Your task to perform on an android device: turn off improve location accuracy Image 0: 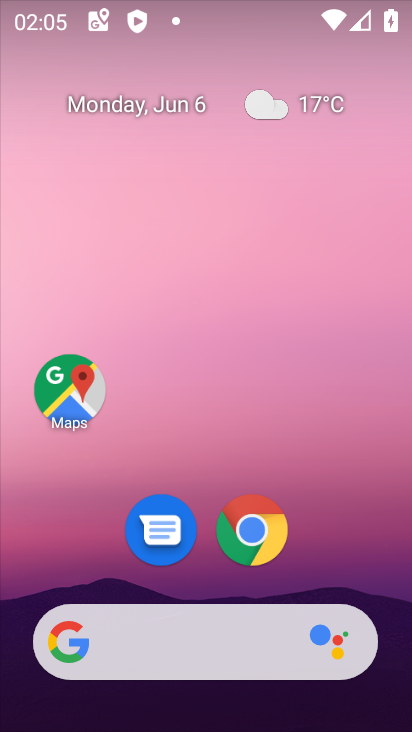
Step 0: drag from (284, 560) to (292, 177)
Your task to perform on an android device: turn off improve location accuracy Image 1: 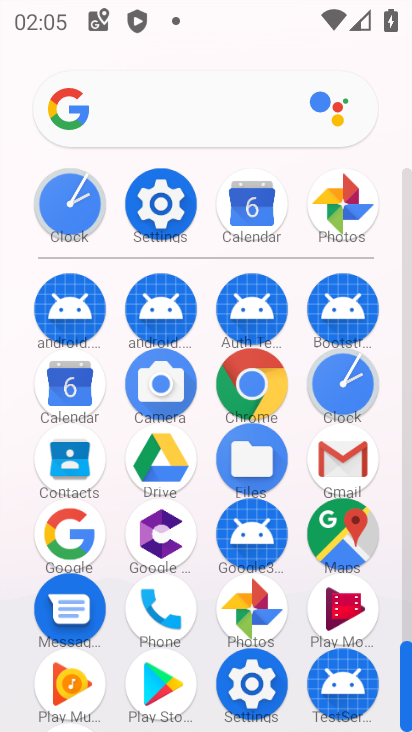
Step 1: click (155, 187)
Your task to perform on an android device: turn off improve location accuracy Image 2: 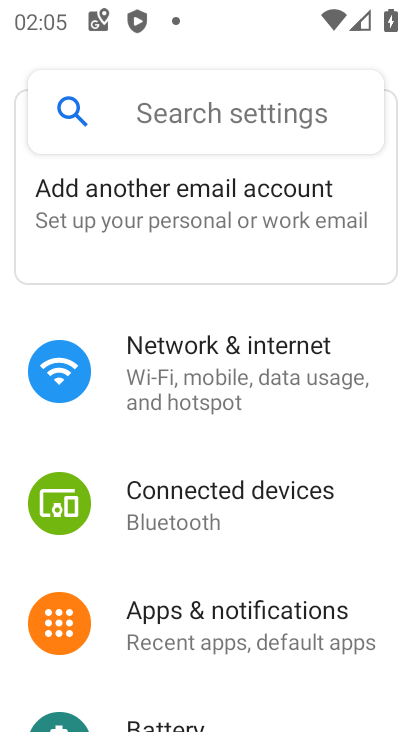
Step 2: drag from (187, 643) to (193, 290)
Your task to perform on an android device: turn off improve location accuracy Image 3: 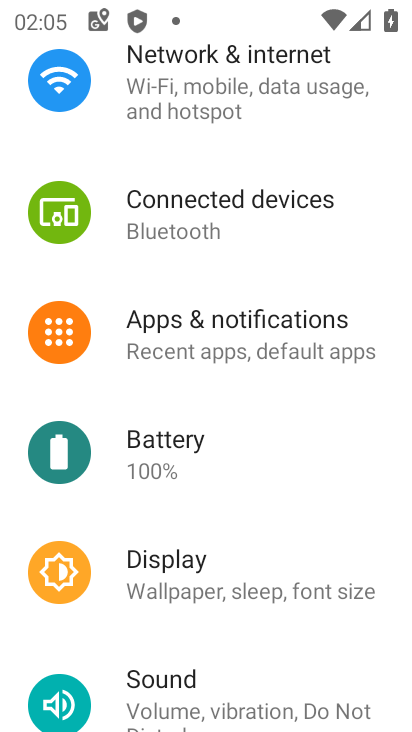
Step 3: drag from (173, 637) to (165, 398)
Your task to perform on an android device: turn off improve location accuracy Image 4: 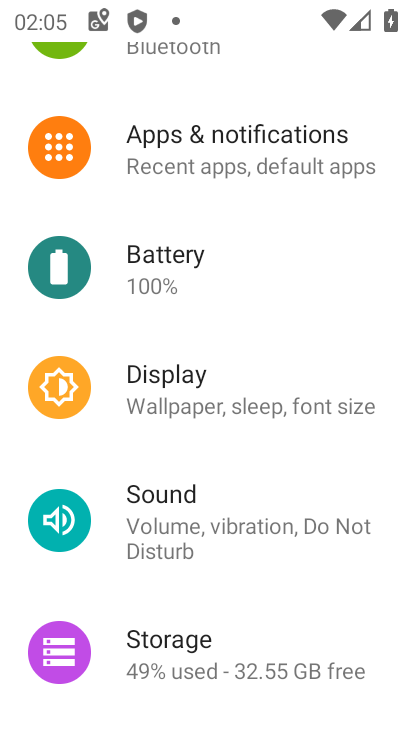
Step 4: drag from (197, 492) to (187, 328)
Your task to perform on an android device: turn off improve location accuracy Image 5: 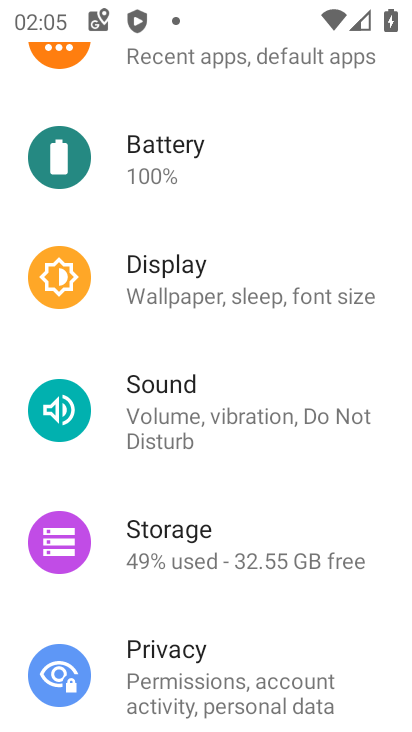
Step 5: drag from (132, 625) to (146, 277)
Your task to perform on an android device: turn off improve location accuracy Image 6: 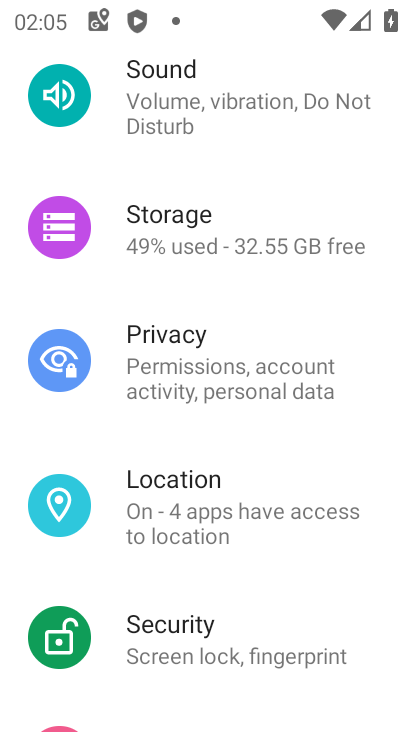
Step 6: click (162, 499)
Your task to perform on an android device: turn off improve location accuracy Image 7: 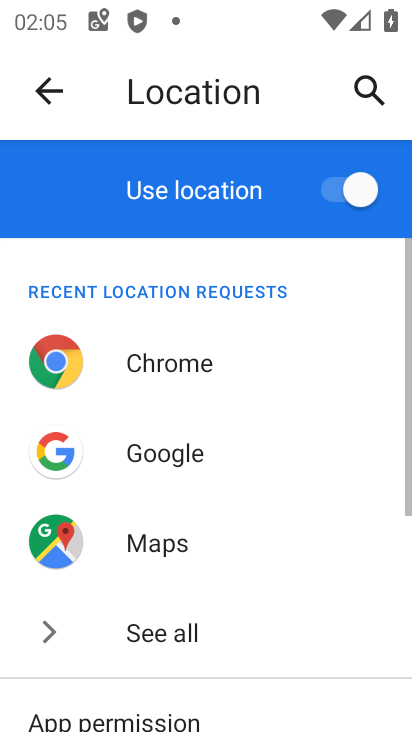
Step 7: drag from (179, 617) to (177, 324)
Your task to perform on an android device: turn off improve location accuracy Image 8: 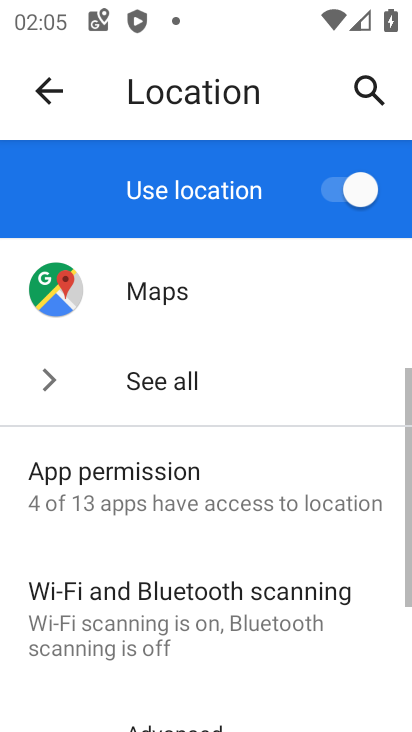
Step 8: drag from (149, 678) to (145, 404)
Your task to perform on an android device: turn off improve location accuracy Image 9: 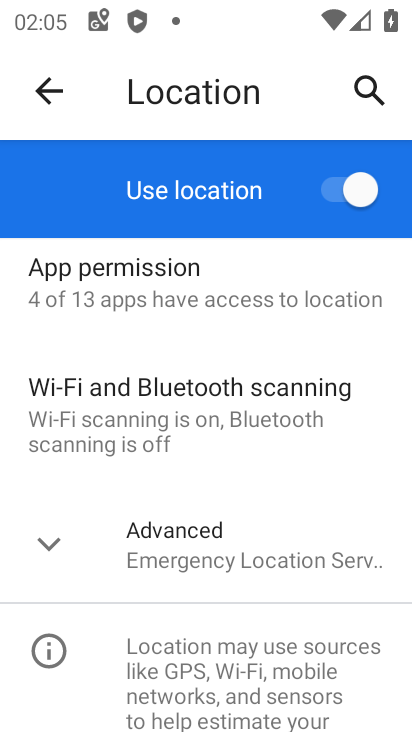
Step 9: click (162, 537)
Your task to perform on an android device: turn off improve location accuracy Image 10: 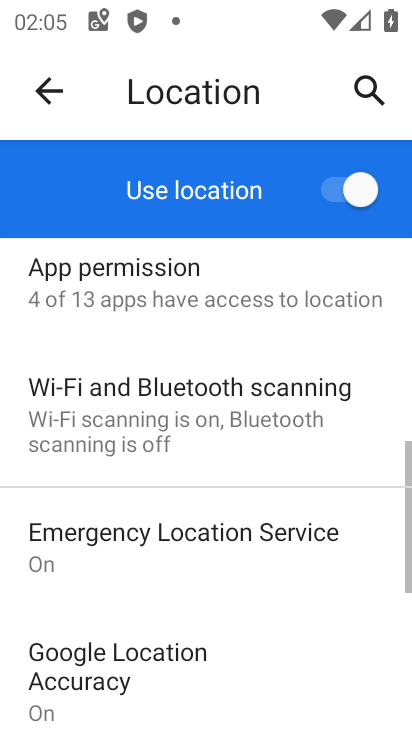
Step 10: drag from (153, 652) to (146, 454)
Your task to perform on an android device: turn off improve location accuracy Image 11: 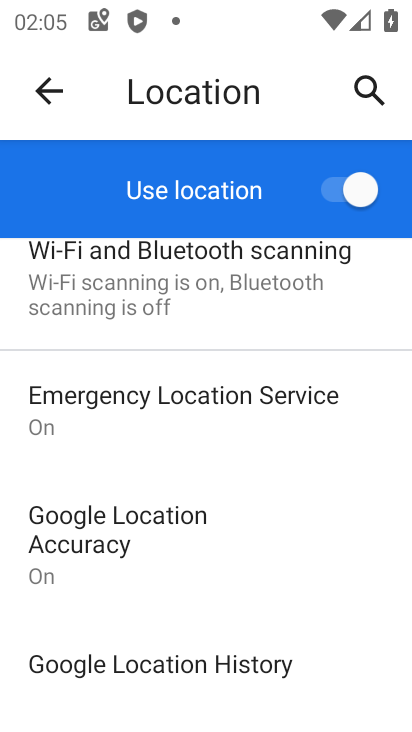
Step 11: click (107, 527)
Your task to perform on an android device: turn off improve location accuracy Image 12: 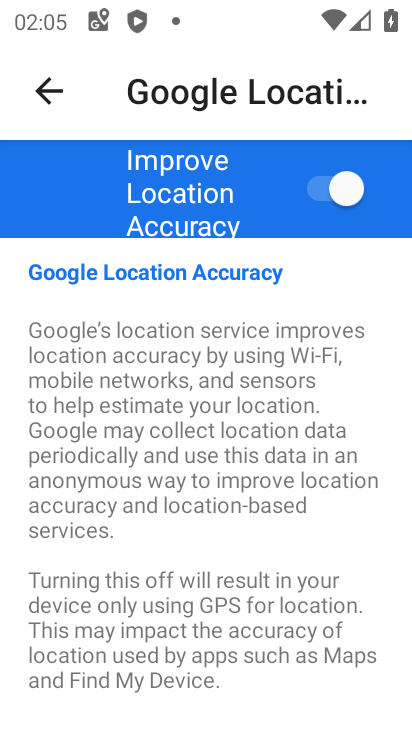
Step 12: click (326, 176)
Your task to perform on an android device: turn off improve location accuracy Image 13: 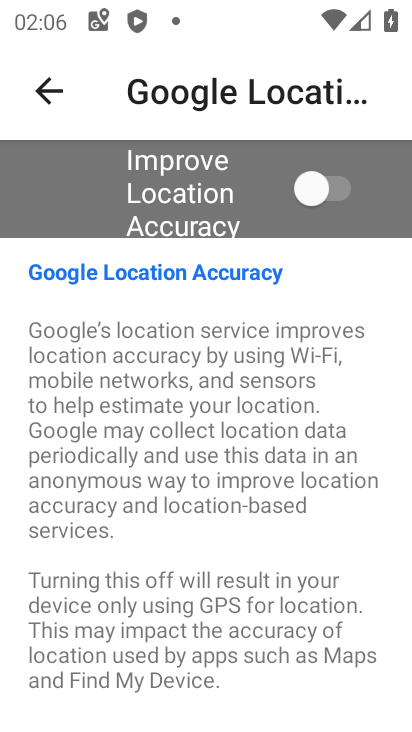
Step 13: task complete